Your task to perform on an android device: Set the phone to "Do not disturb". Image 0: 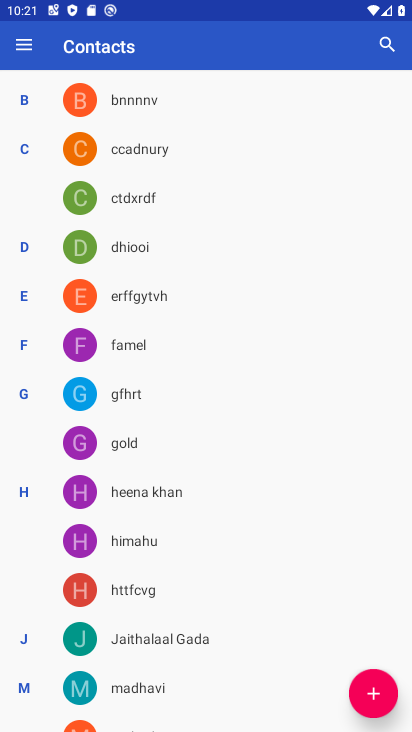
Step 0: press home button
Your task to perform on an android device: Set the phone to "Do not disturb". Image 1: 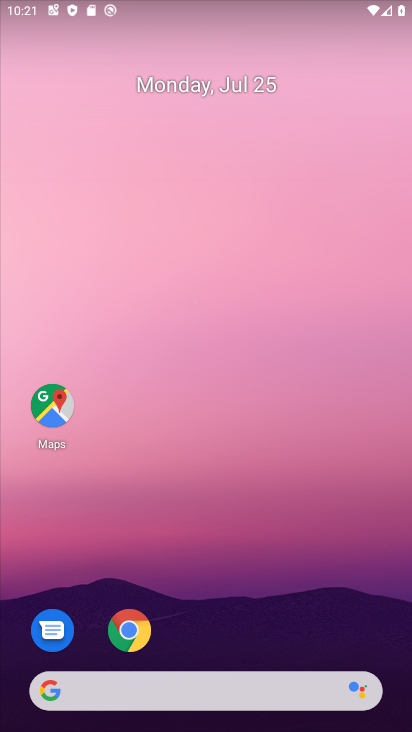
Step 1: drag from (246, 577) to (238, 1)
Your task to perform on an android device: Set the phone to "Do not disturb". Image 2: 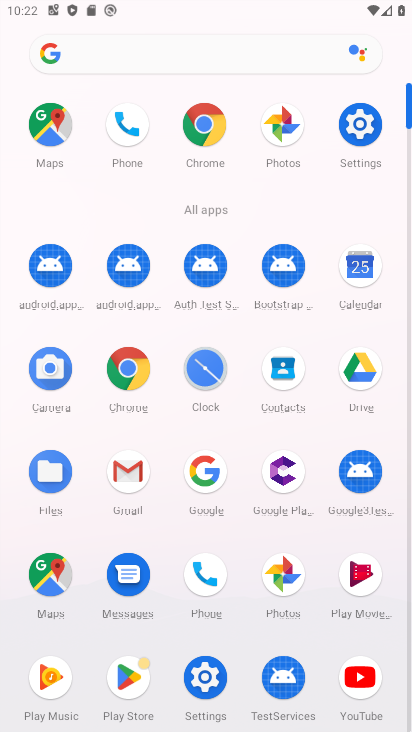
Step 2: drag from (218, 2) to (243, 617)
Your task to perform on an android device: Set the phone to "Do not disturb". Image 3: 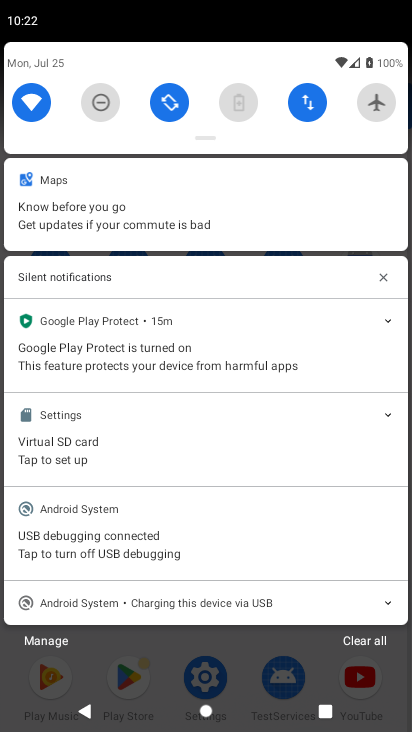
Step 3: click (104, 101)
Your task to perform on an android device: Set the phone to "Do not disturb". Image 4: 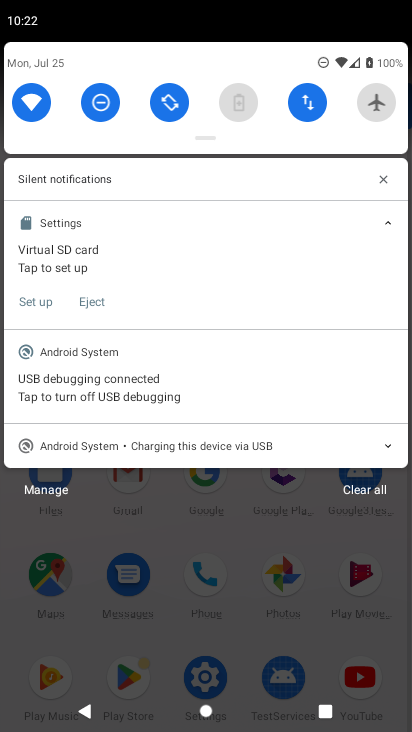
Step 4: task complete